Your task to perform on an android device: Go to Maps Image 0: 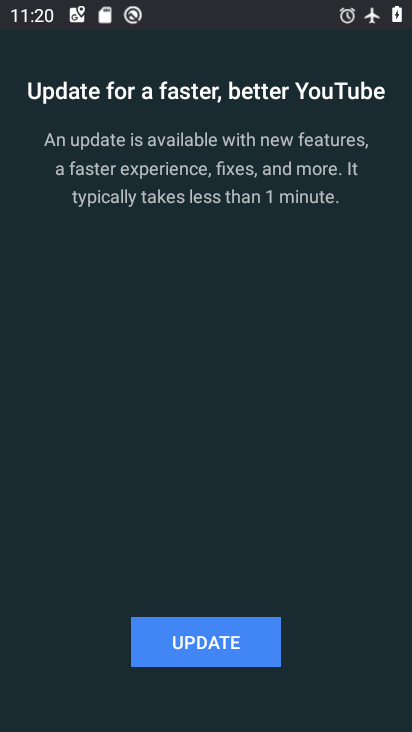
Step 0: press back button
Your task to perform on an android device: Go to Maps Image 1: 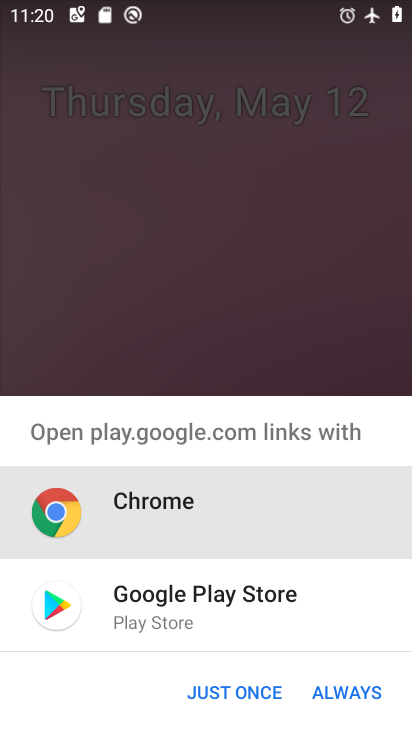
Step 1: press back button
Your task to perform on an android device: Go to Maps Image 2: 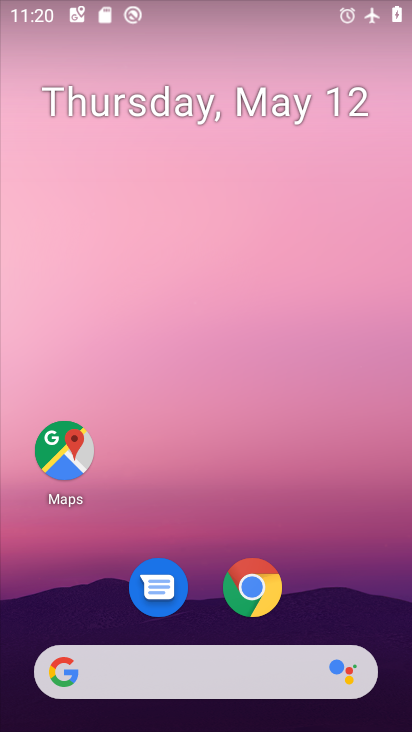
Step 2: drag from (378, 605) to (274, 57)
Your task to perform on an android device: Go to Maps Image 3: 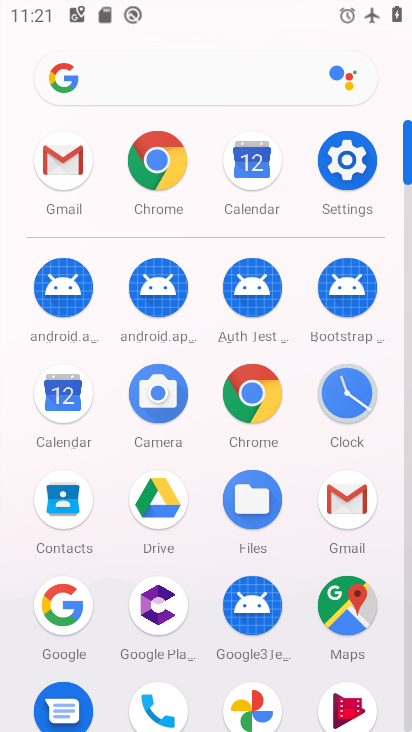
Step 3: click (344, 619)
Your task to perform on an android device: Go to Maps Image 4: 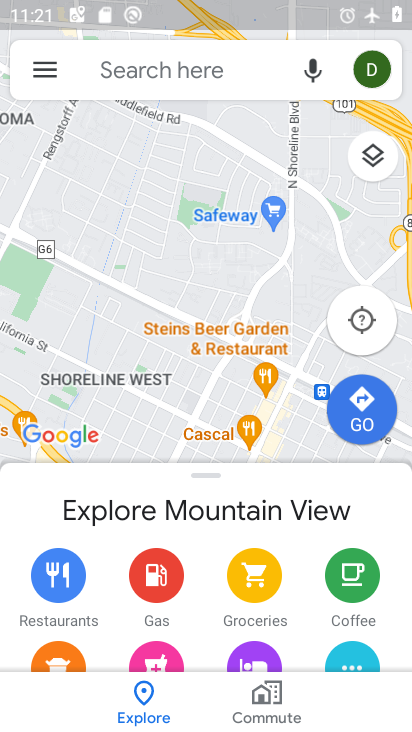
Step 4: task complete